Your task to perform on an android device: When is my next meeting? Image 0: 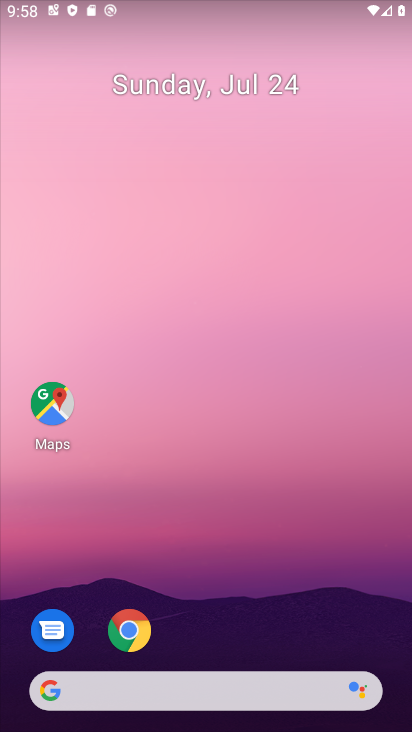
Step 0: drag from (226, 603) to (224, 164)
Your task to perform on an android device: When is my next meeting? Image 1: 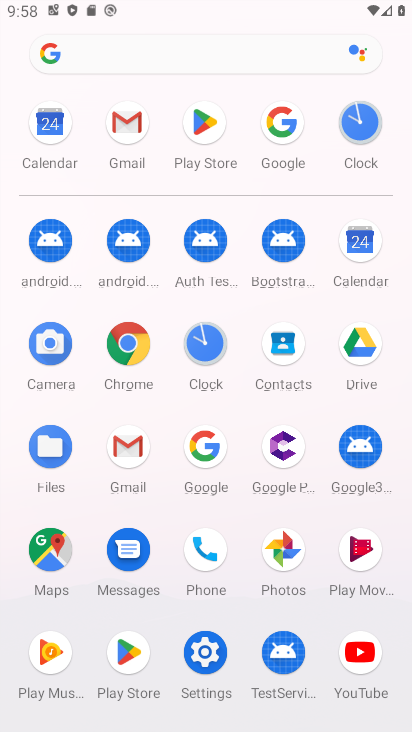
Step 1: click (349, 247)
Your task to perform on an android device: When is my next meeting? Image 2: 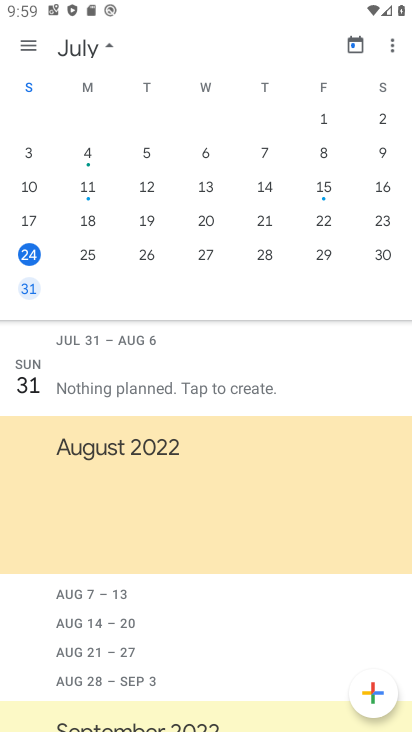
Step 2: task complete